Your task to perform on an android device: Go to location settings Image 0: 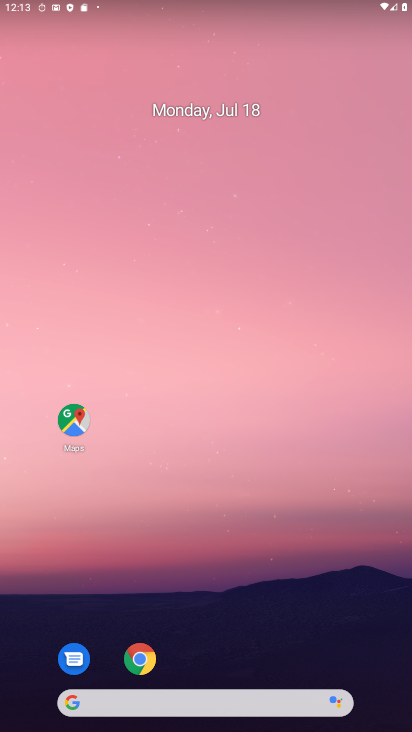
Step 0: drag from (221, 661) to (241, 208)
Your task to perform on an android device: Go to location settings Image 1: 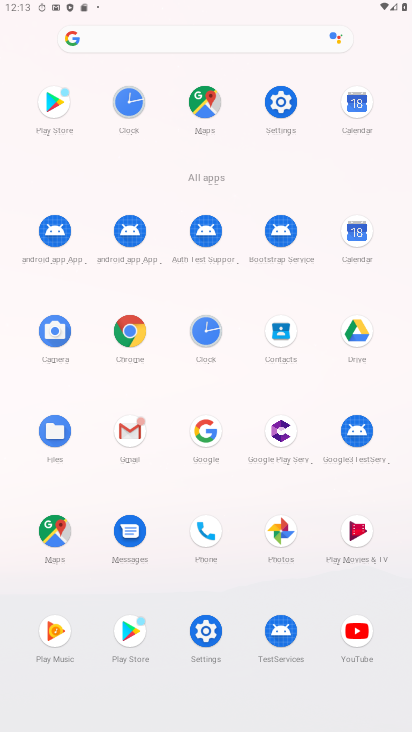
Step 1: click (209, 630)
Your task to perform on an android device: Go to location settings Image 2: 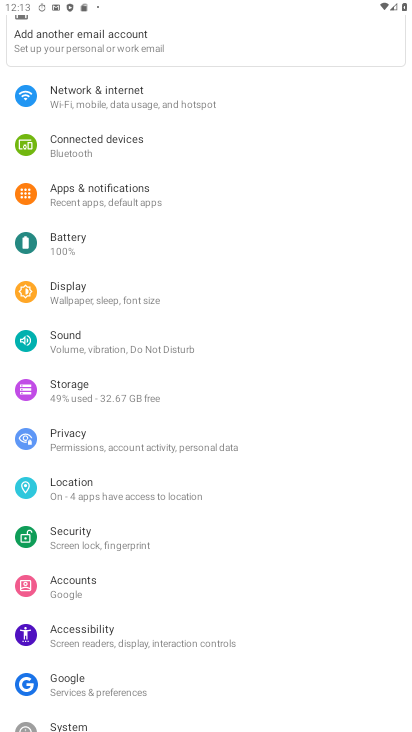
Step 2: click (105, 498)
Your task to perform on an android device: Go to location settings Image 3: 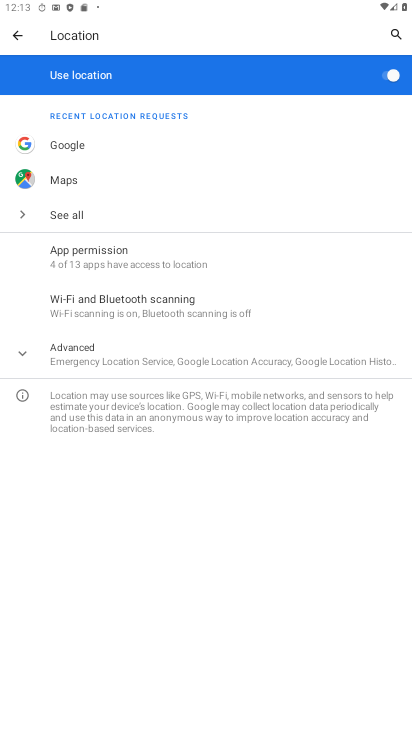
Step 3: task complete